Your task to perform on an android device: Go to location settings Image 0: 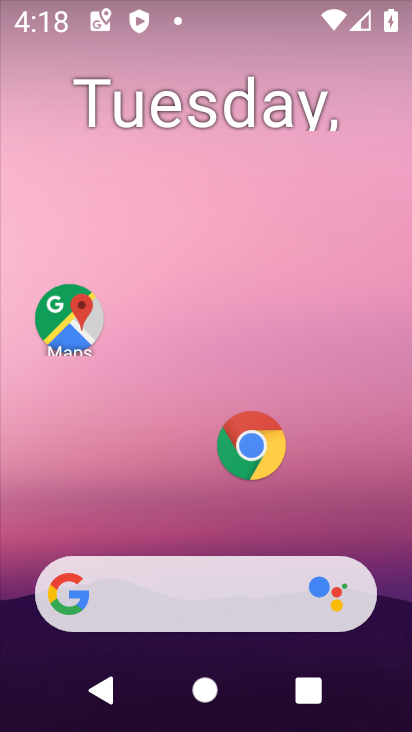
Step 0: drag from (175, 178) to (145, 10)
Your task to perform on an android device: Go to location settings Image 1: 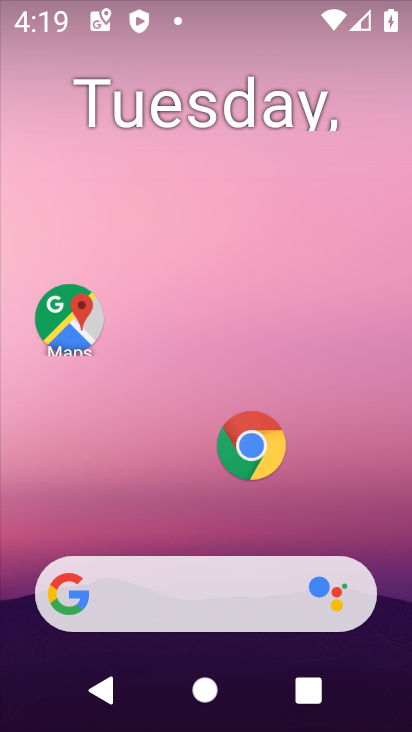
Step 1: drag from (160, 424) to (155, 0)
Your task to perform on an android device: Go to location settings Image 2: 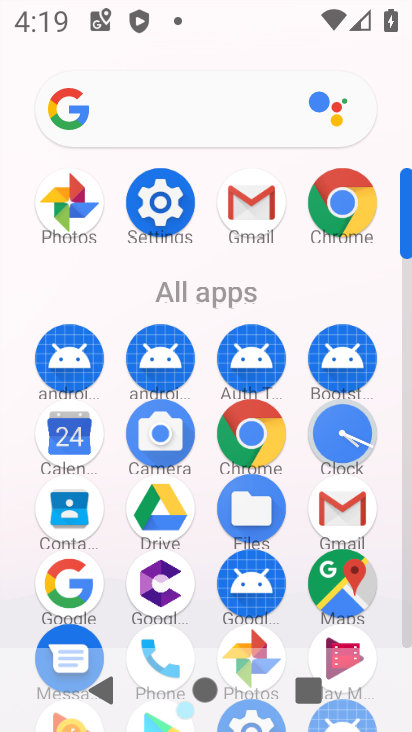
Step 2: drag from (168, 231) to (110, 16)
Your task to perform on an android device: Go to location settings Image 3: 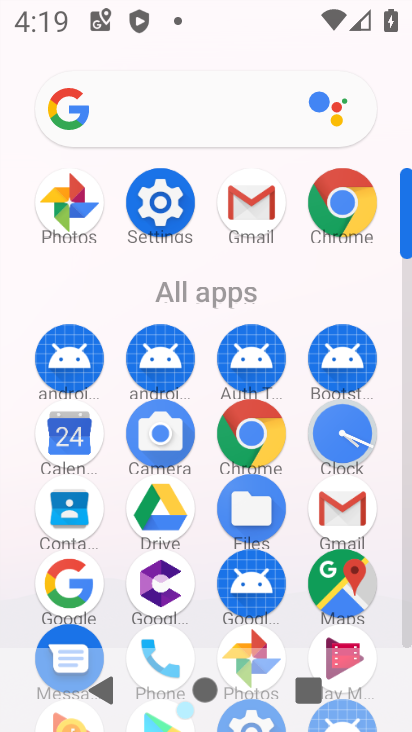
Step 3: drag from (172, 405) to (241, 1)
Your task to perform on an android device: Go to location settings Image 4: 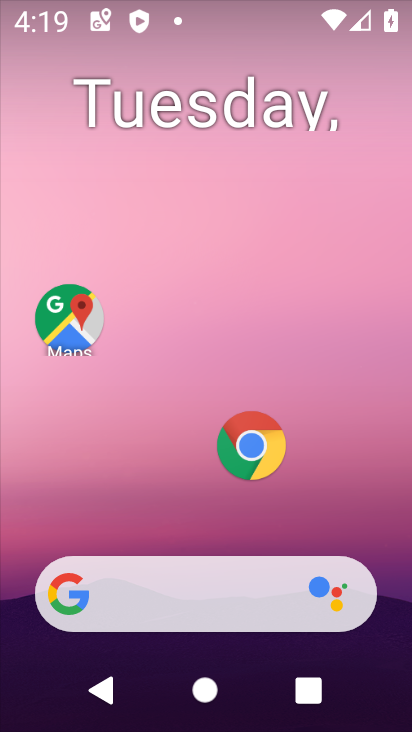
Step 4: drag from (194, 525) to (227, 11)
Your task to perform on an android device: Go to location settings Image 5: 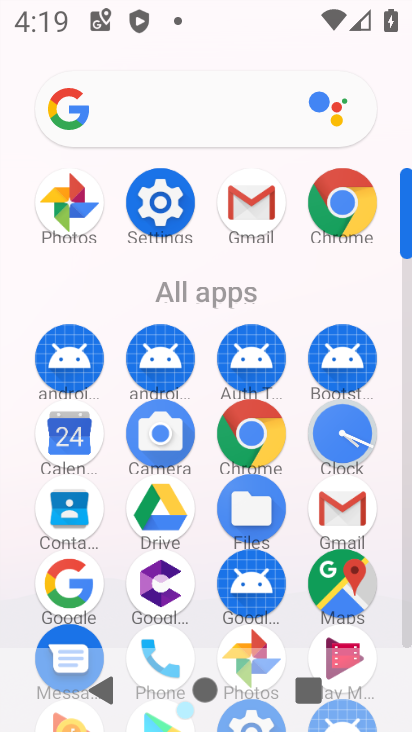
Step 5: click (162, 204)
Your task to perform on an android device: Go to location settings Image 6: 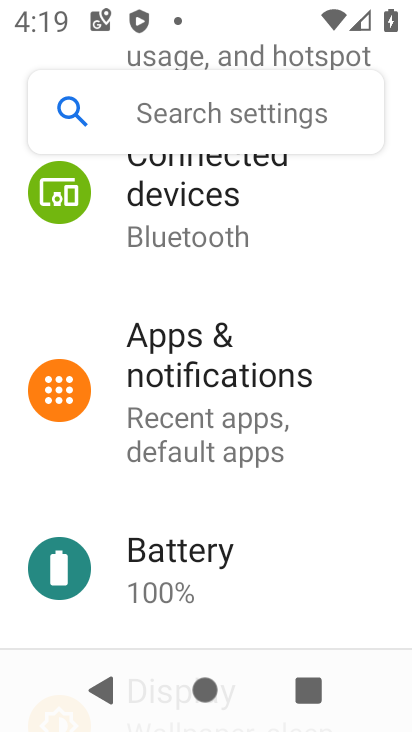
Step 6: drag from (216, 519) to (240, 277)
Your task to perform on an android device: Go to location settings Image 7: 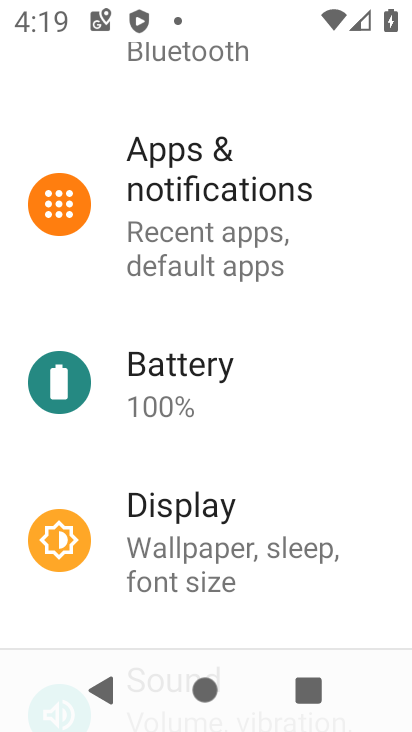
Step 7: drag from (210, 558) to (229, 185)
Your task to perform on an android device: Go to location settings Image 8: 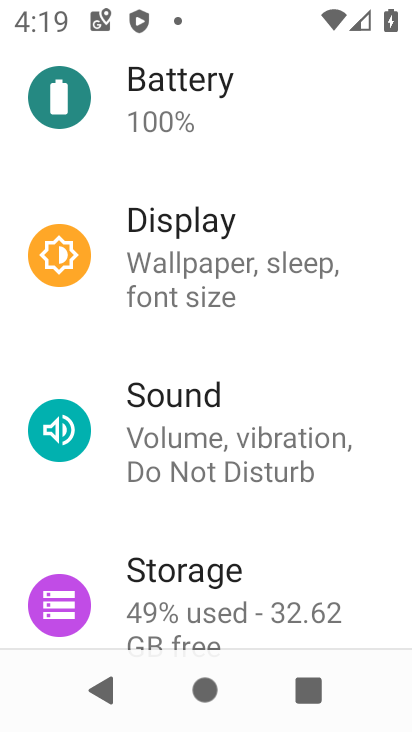
Step 8: drag from (195, 580) to (226, 278)
Your task to perform on an android device: Go to location settings Image 9: 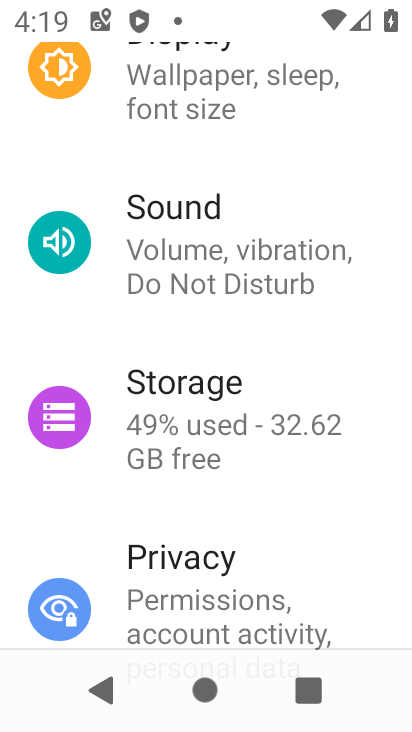
Step 9: drag from (176, 578) to (205, 261)
Your task to perform on an android device: Go to location settings Image 10: 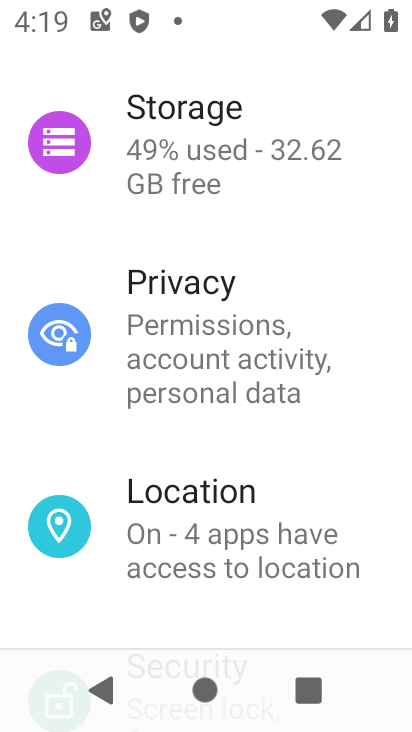
Step 10: click (183, 506)
Your task to perform on an android device: Go to location settings Image 11: 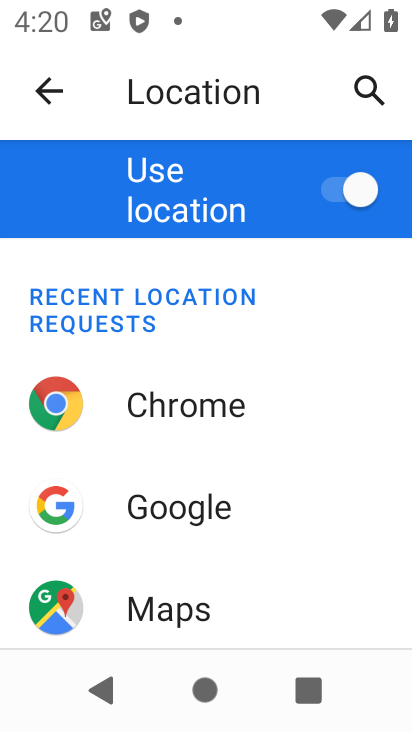
Step 11: task complete